Your task to perform on an android device: Go to display settings Image 0: 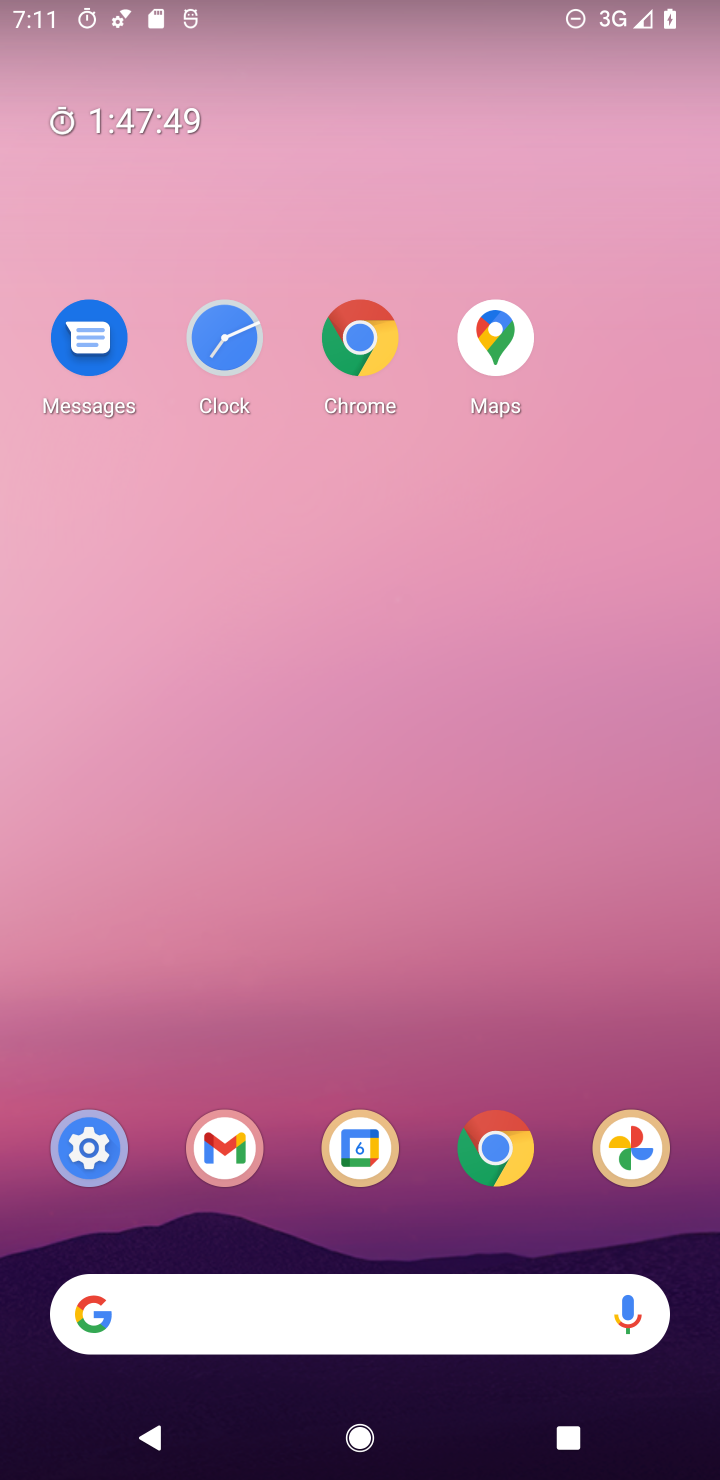
Step 0: drag from (434, 997) to (416, 189)
Your task to perform on an android device: Go to display settings Image 1: 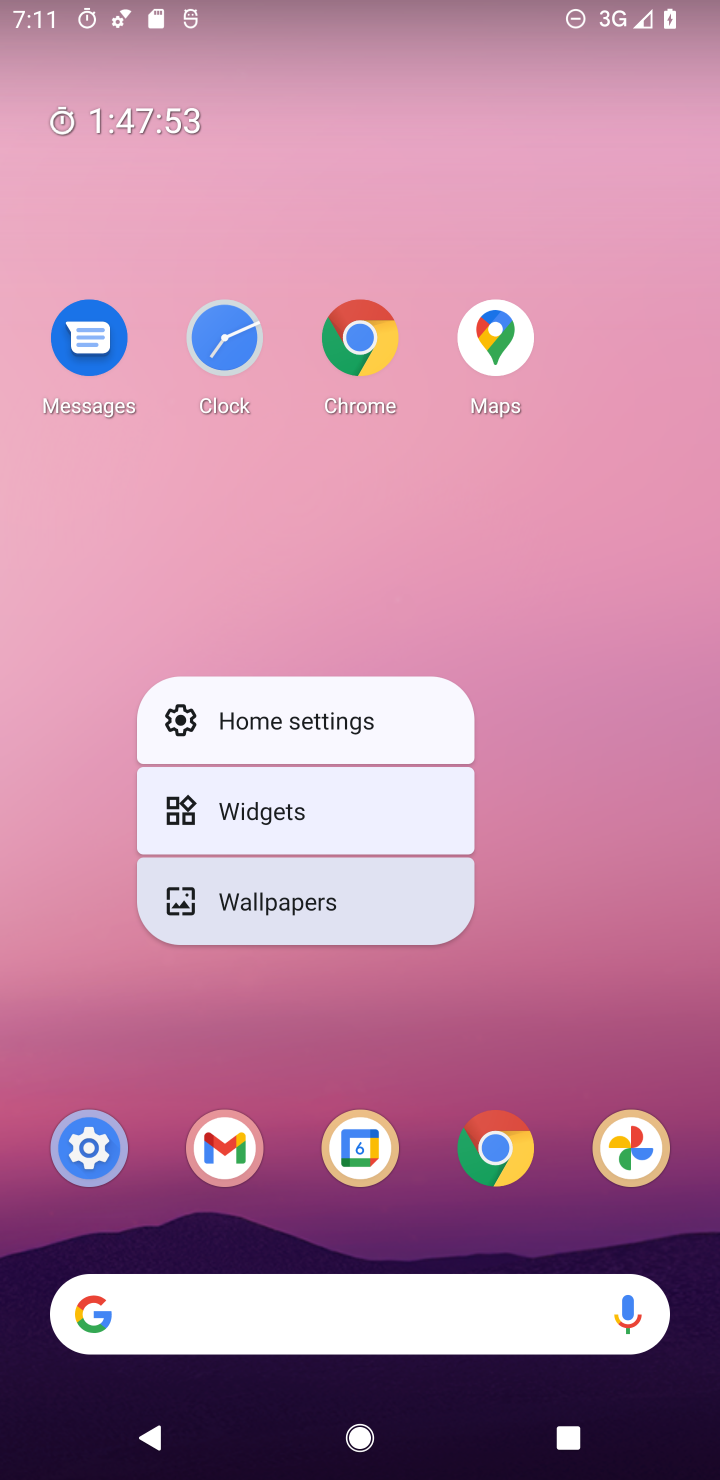
Step 1: drag from (428, 1195) to (407, 240)
Your task to perform on an android device: Go to display settings Image 2: 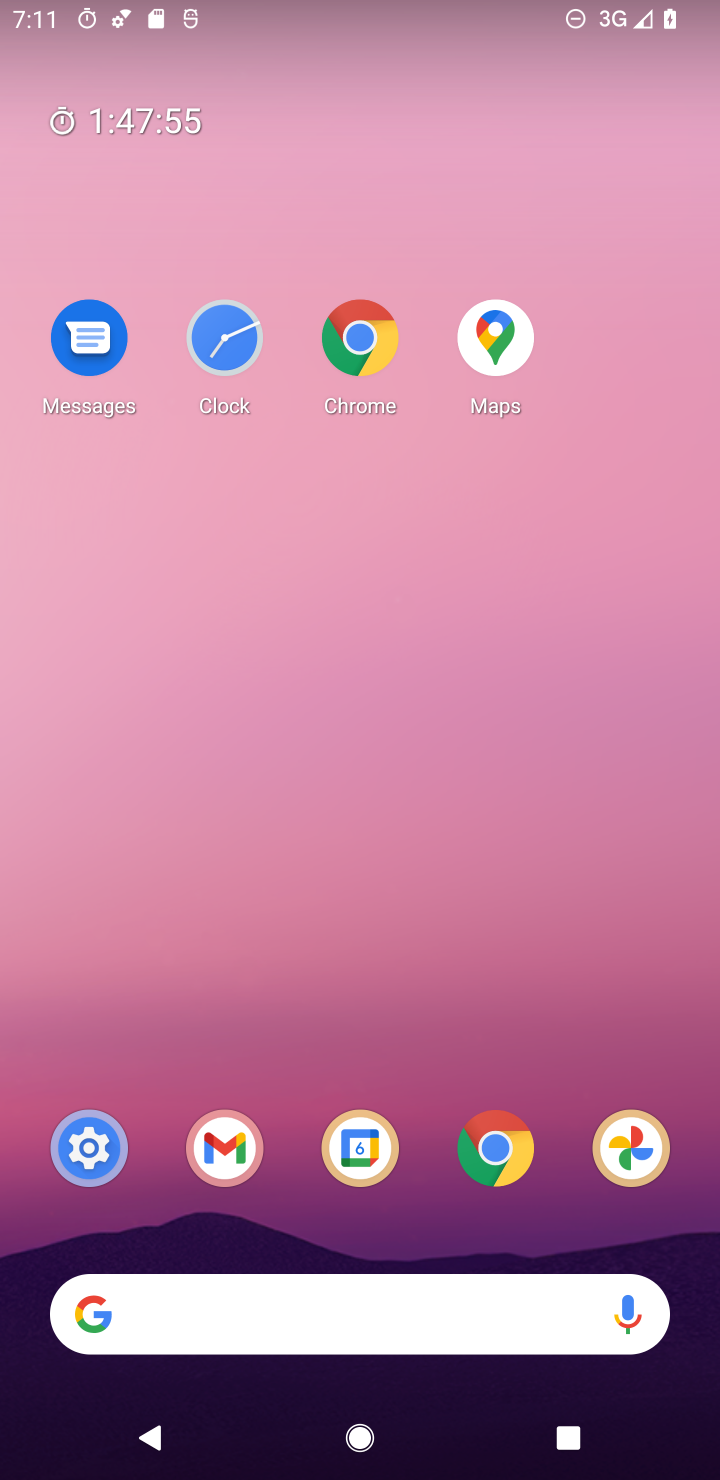
Step 2: drag from (432, 1228) to (575, 269)
Your task to perform on an android device: Go to display settings Image 3: 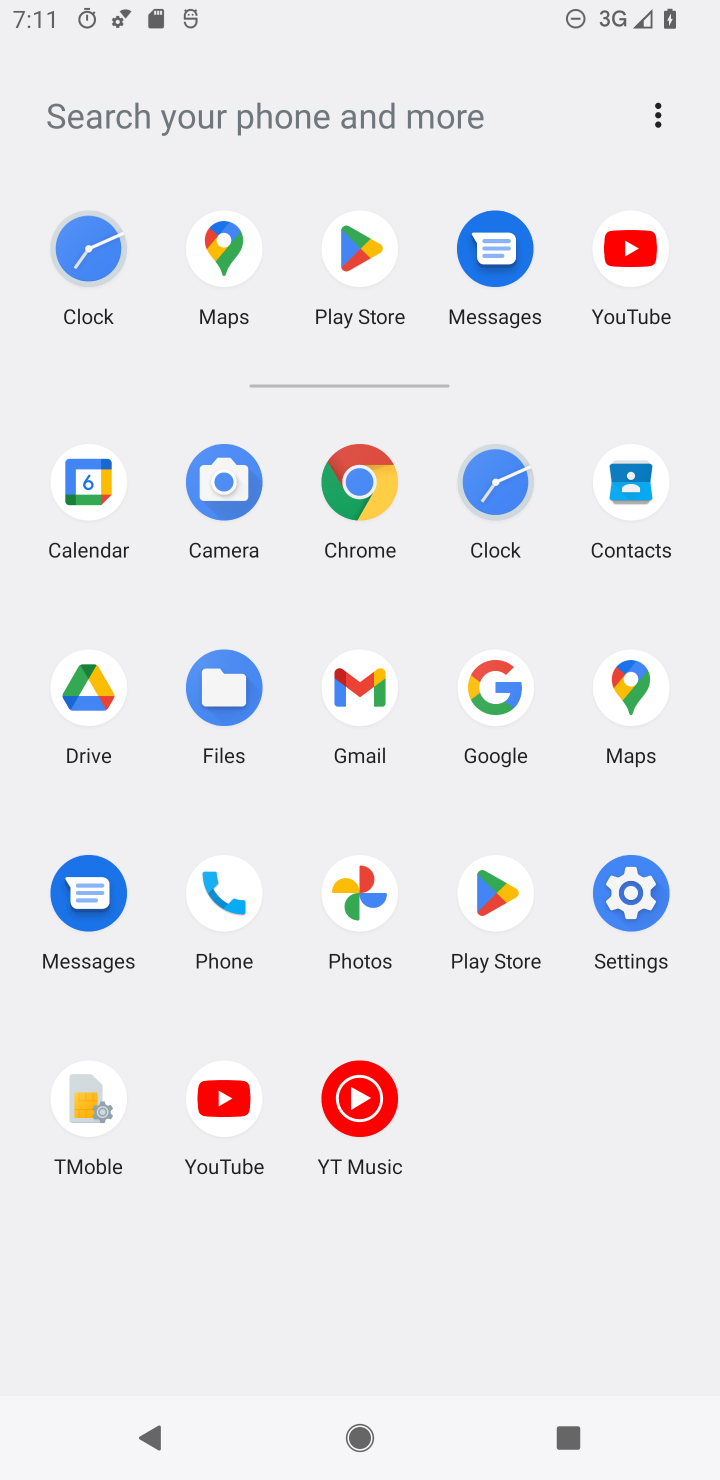
Step 3: click (347, 469)
Your task to perform on an android device: Go to display settings Image 4: 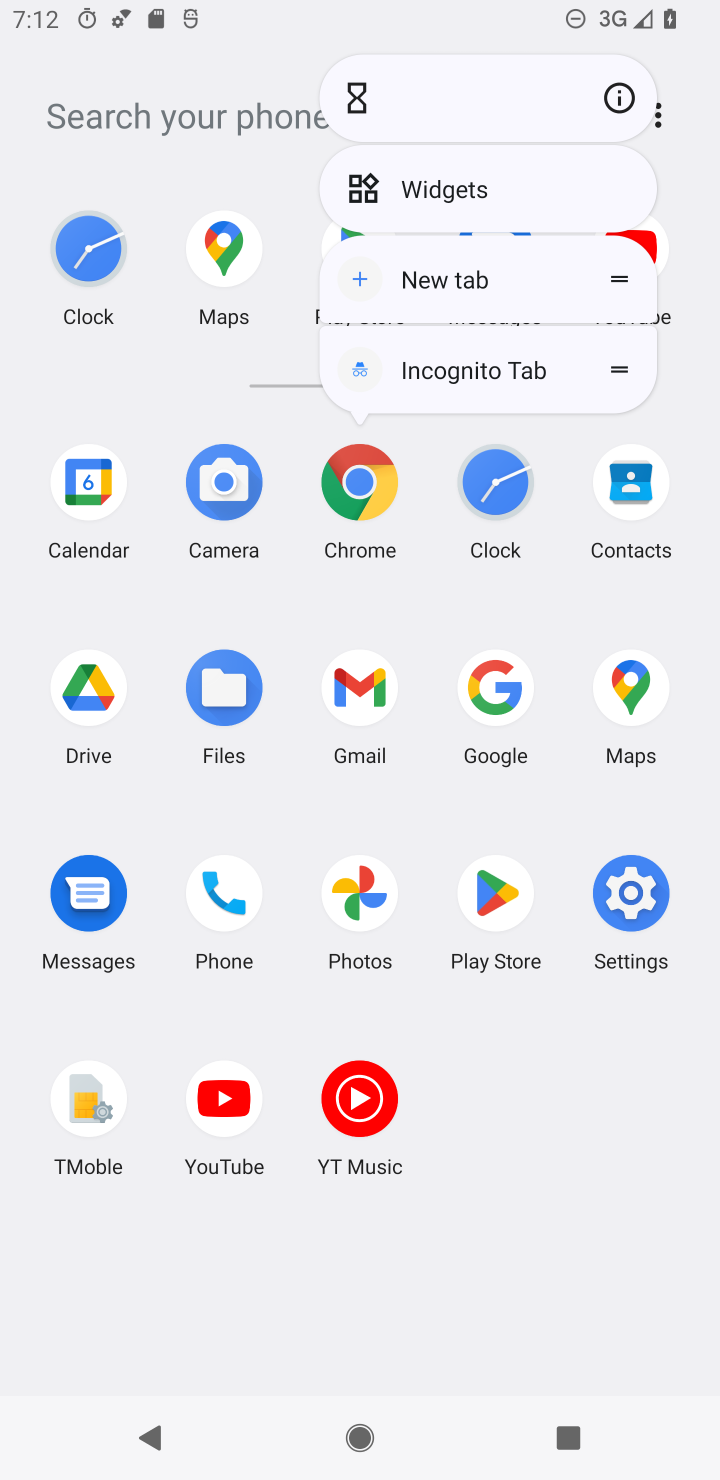
Step 4: click (609, 96)
Your task to perform on an android device: Go to display settings Image 5: 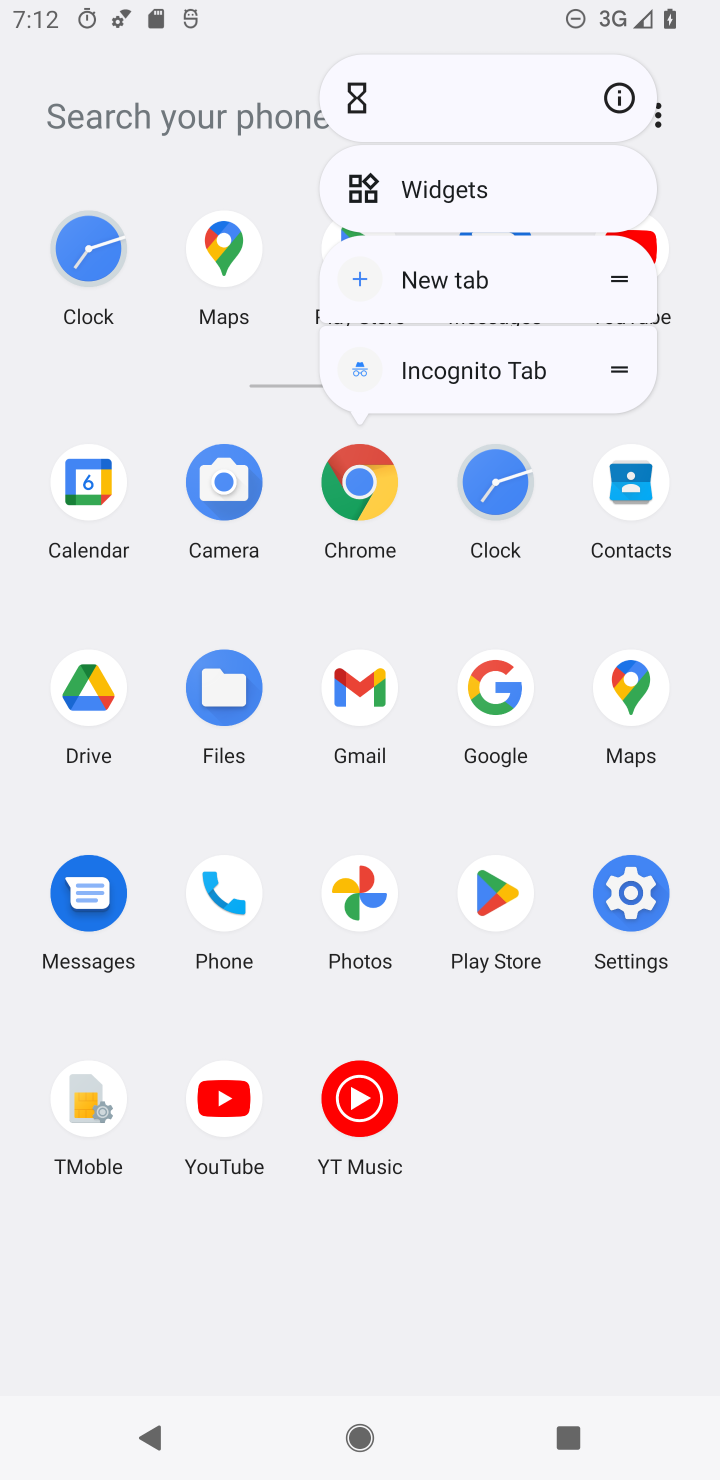
Step 5: click (610, 901)
Your task to perform on an android device: Go to display settings Image 6: 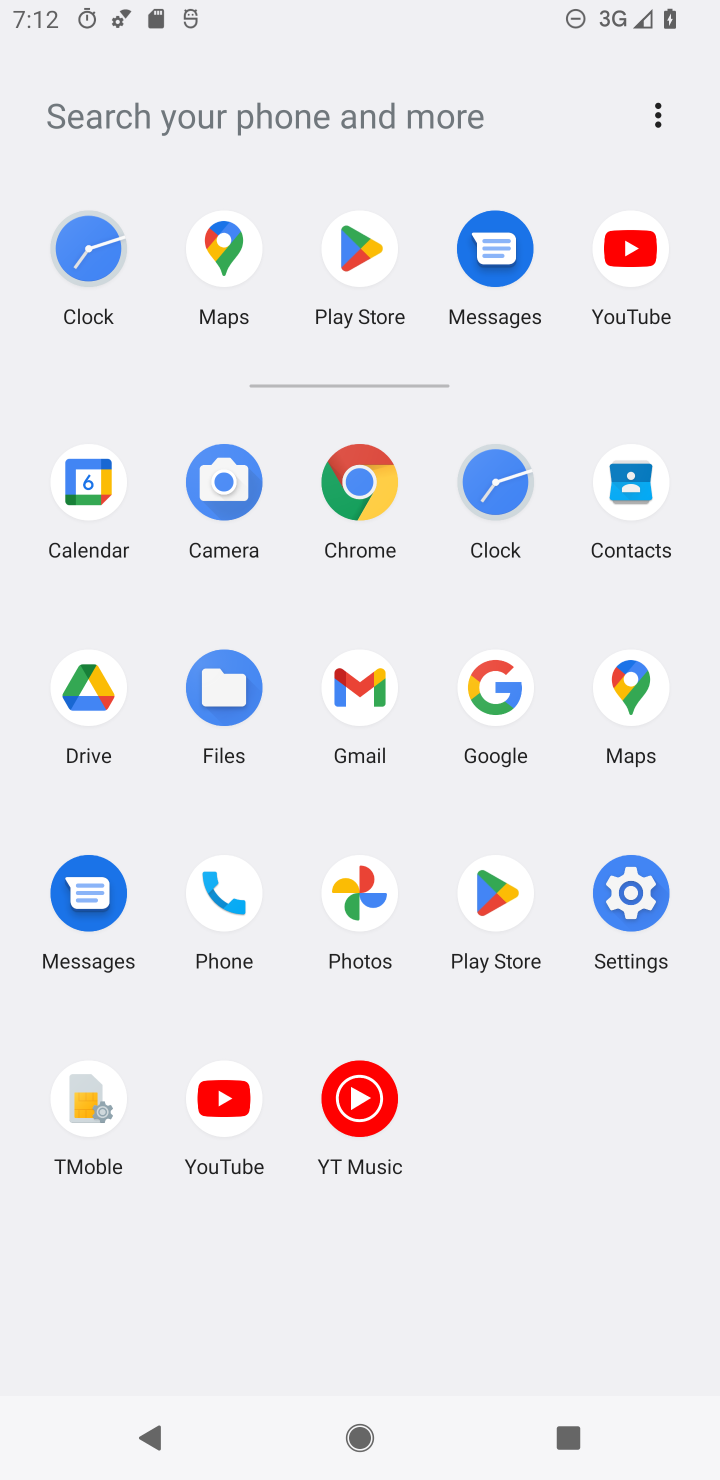
Step 6: click (608, 901)
Your task to perform on an android device: Go to display settings Image 7: 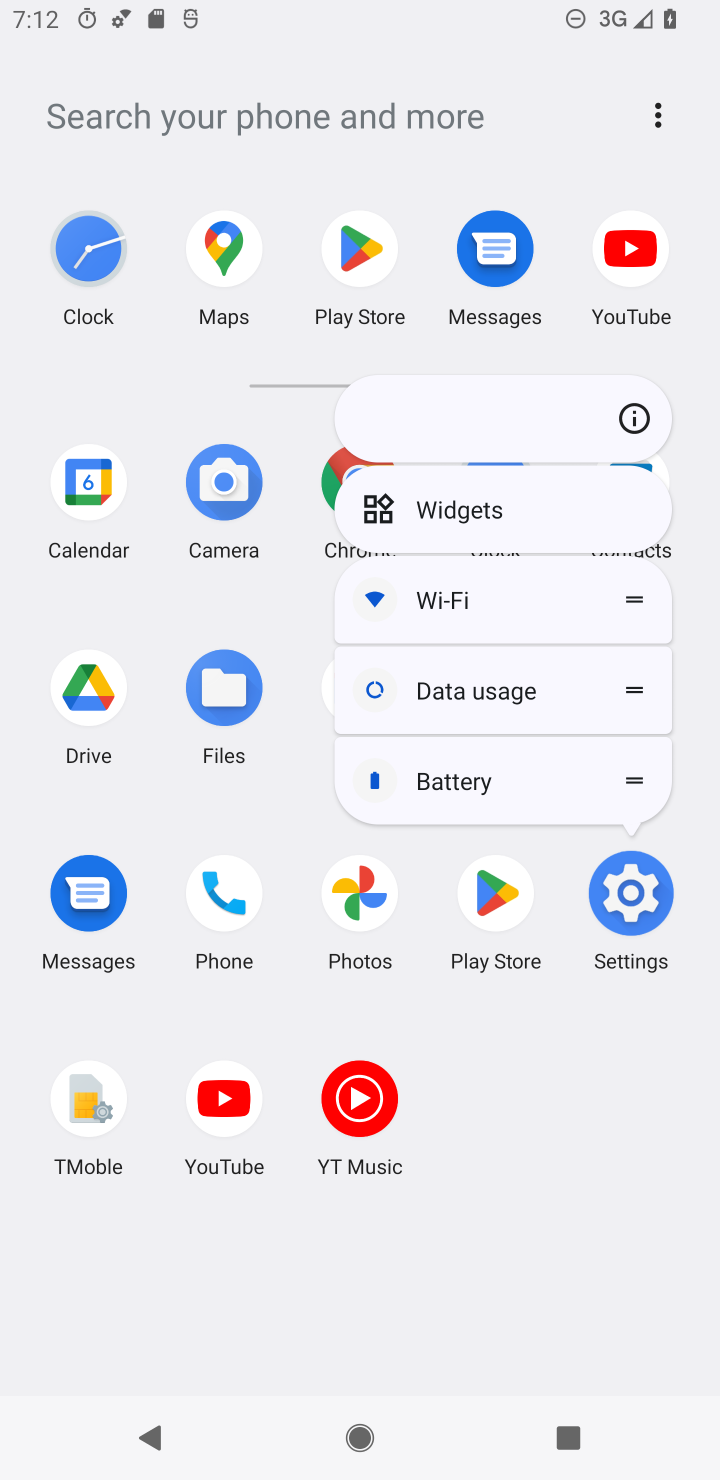
Step 7: click (608, 901)
Your task to perform on an android device: Go to display settings Image 8: 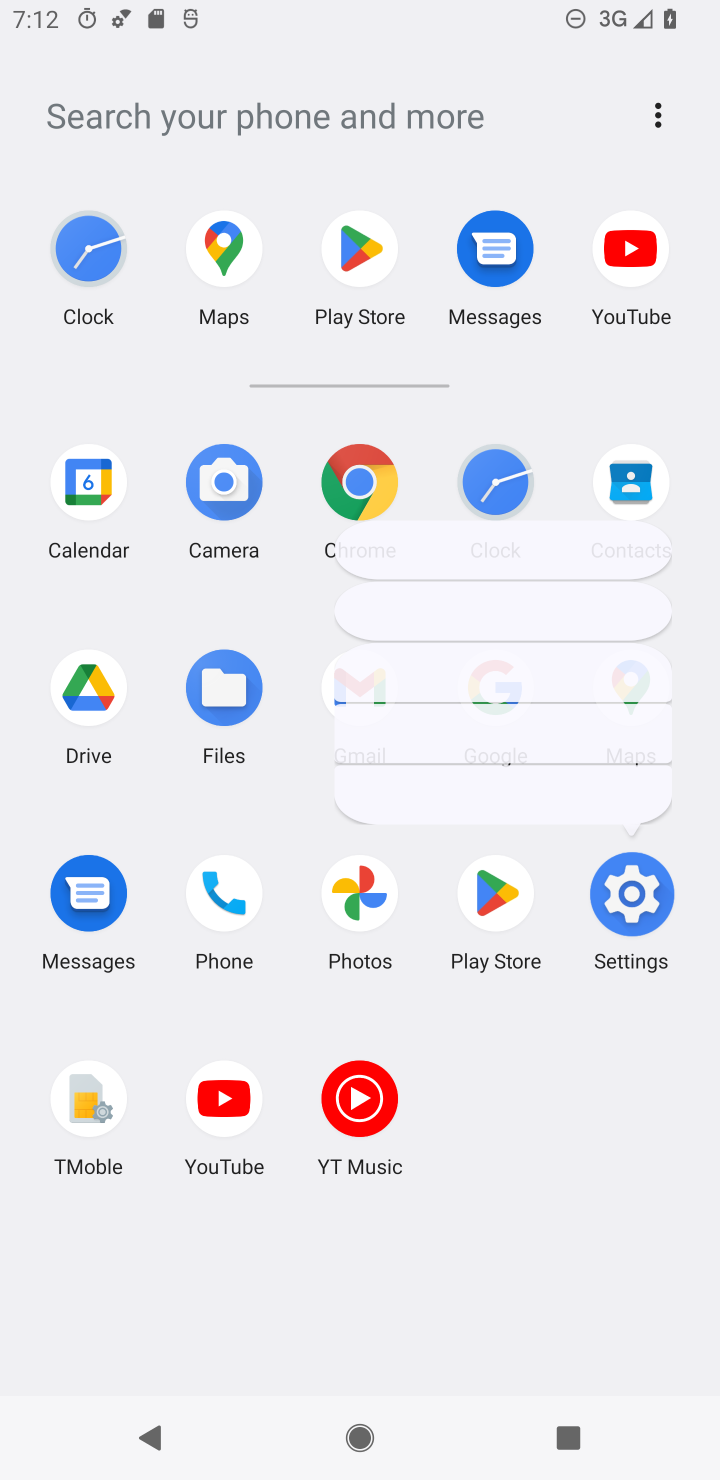
Step 8: click (614, 897)
Your task to perform on an android device: Go to display settings Image 9: 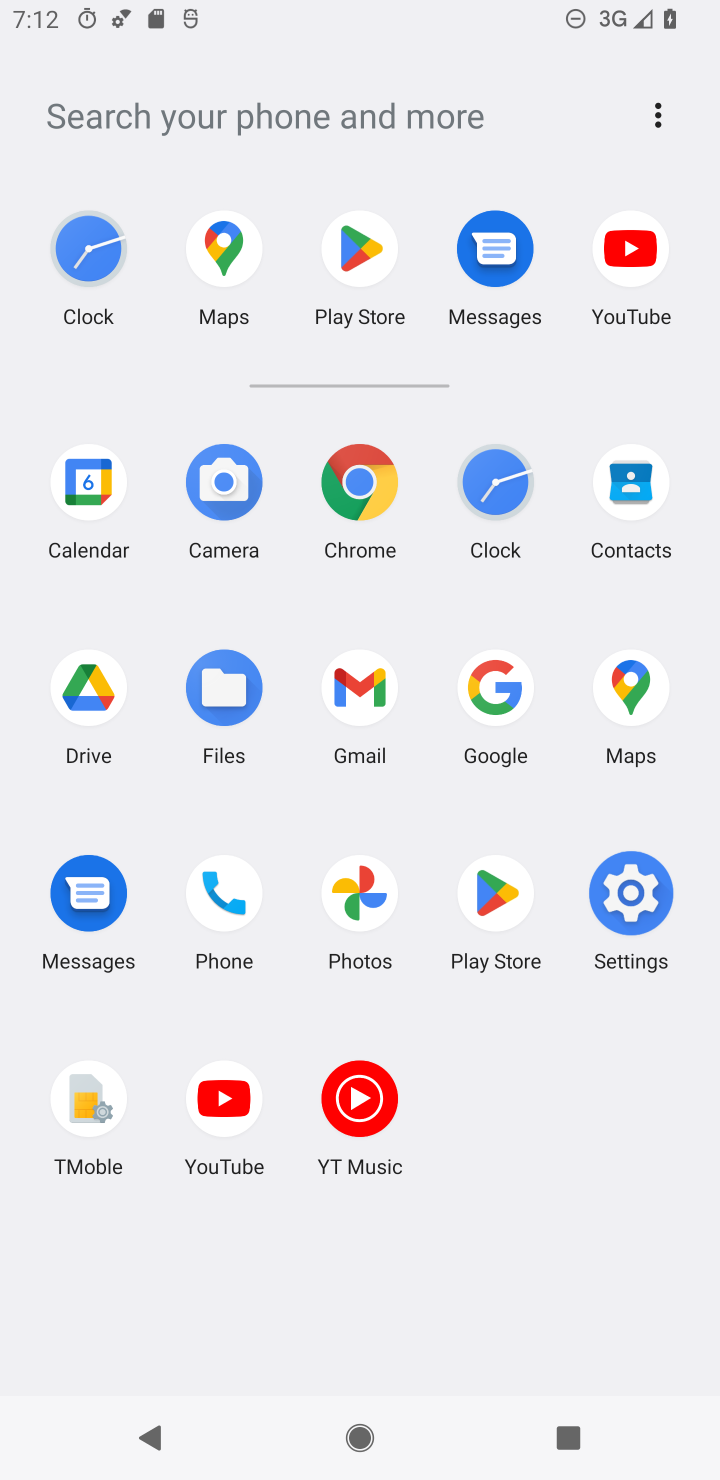
Step 9: click (673, 843)
Your task to perform on an android device: Go to display settings Image 10: 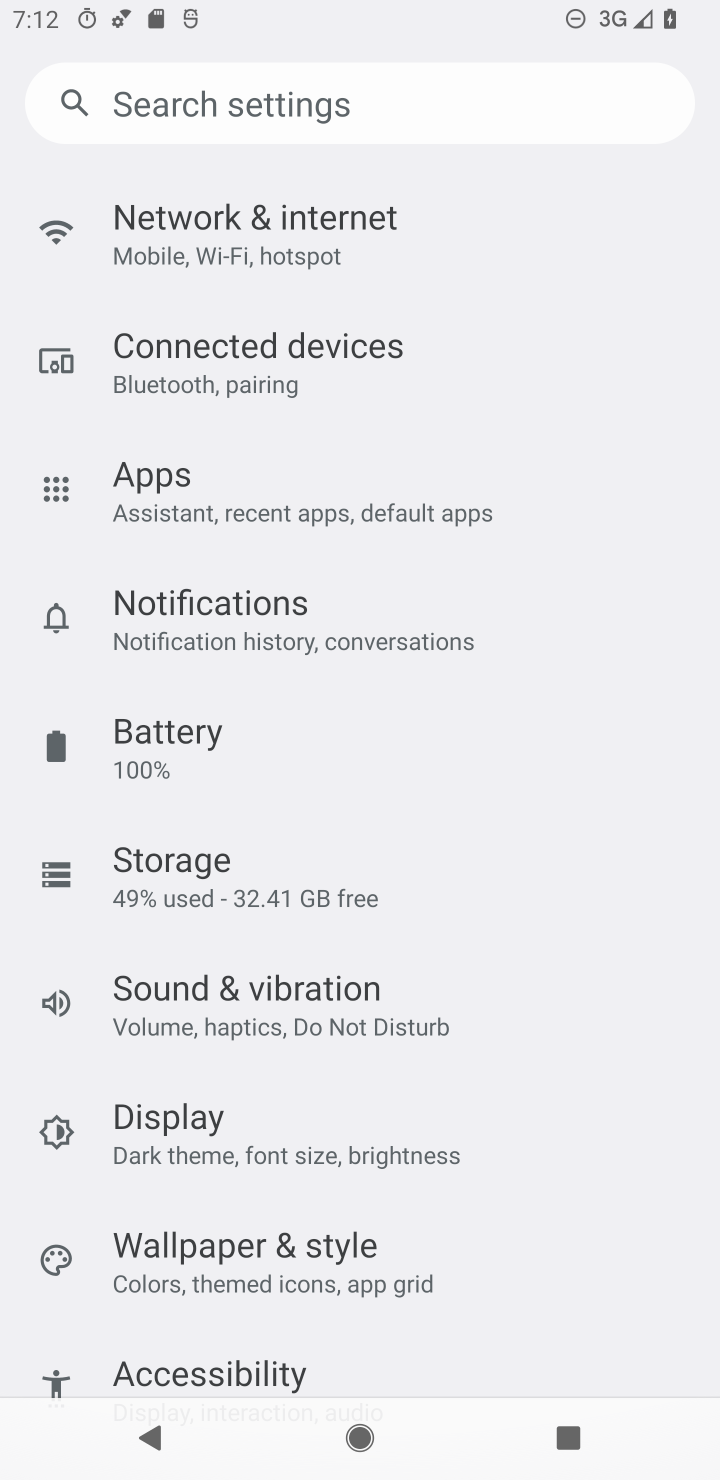
Step 10: click (641, 870)
Your task to perform on an android device: Go to display settings Image 11: 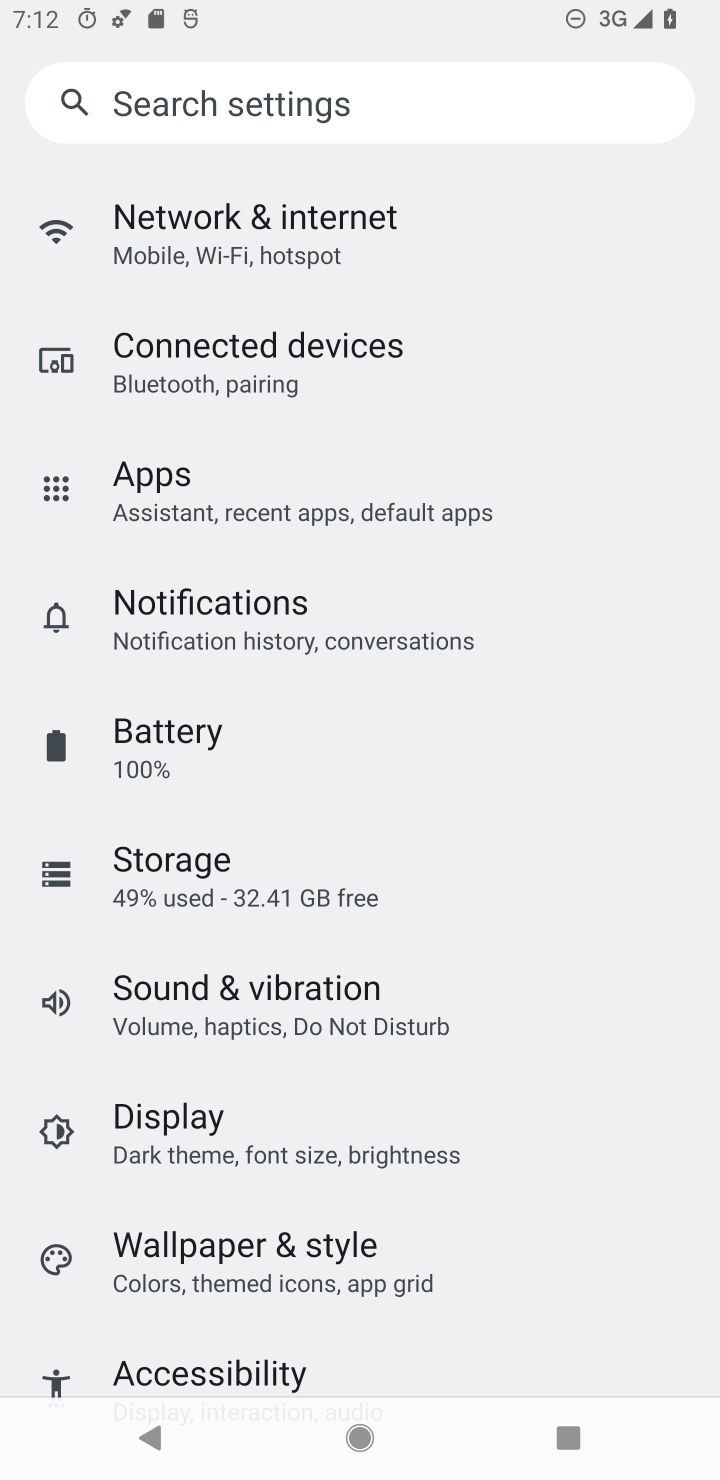
Step 11: drag from (510, 1052) to (575, 356)
Your task to perform on an android device: Go to display settings Image 12: 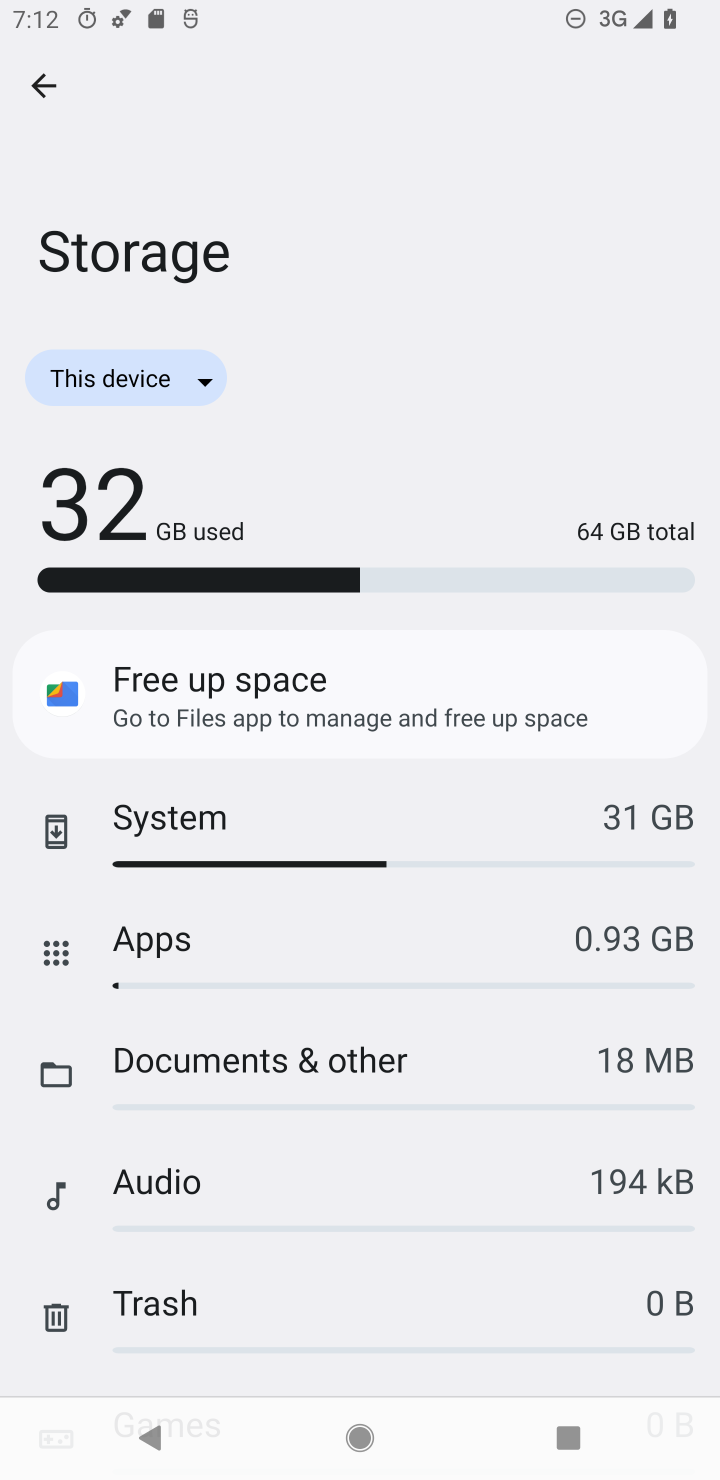
Step 12: press back button
Your task to perform on an android device: Go to display settings Image 13: 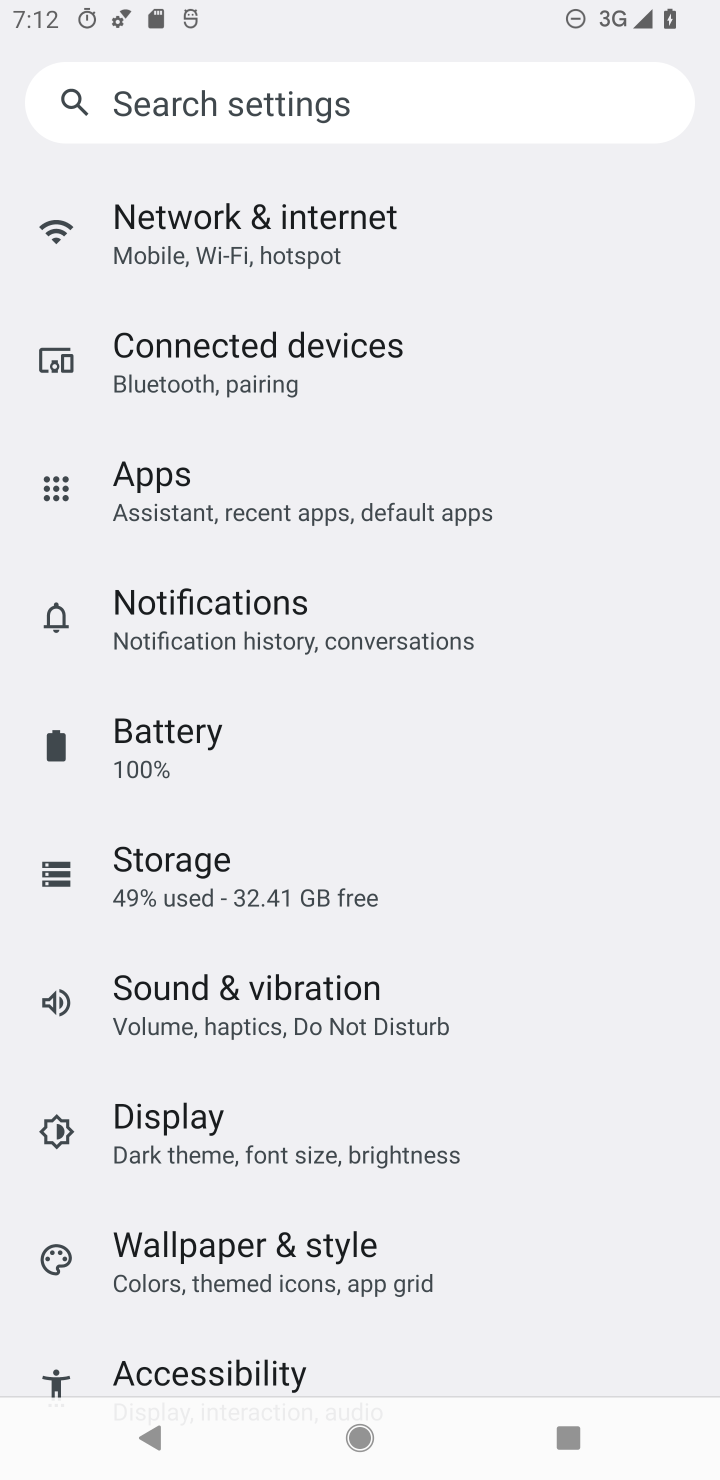
Step 13: click (255, 1116)
Your task to perform on an android device: Go to display settings Image 14: 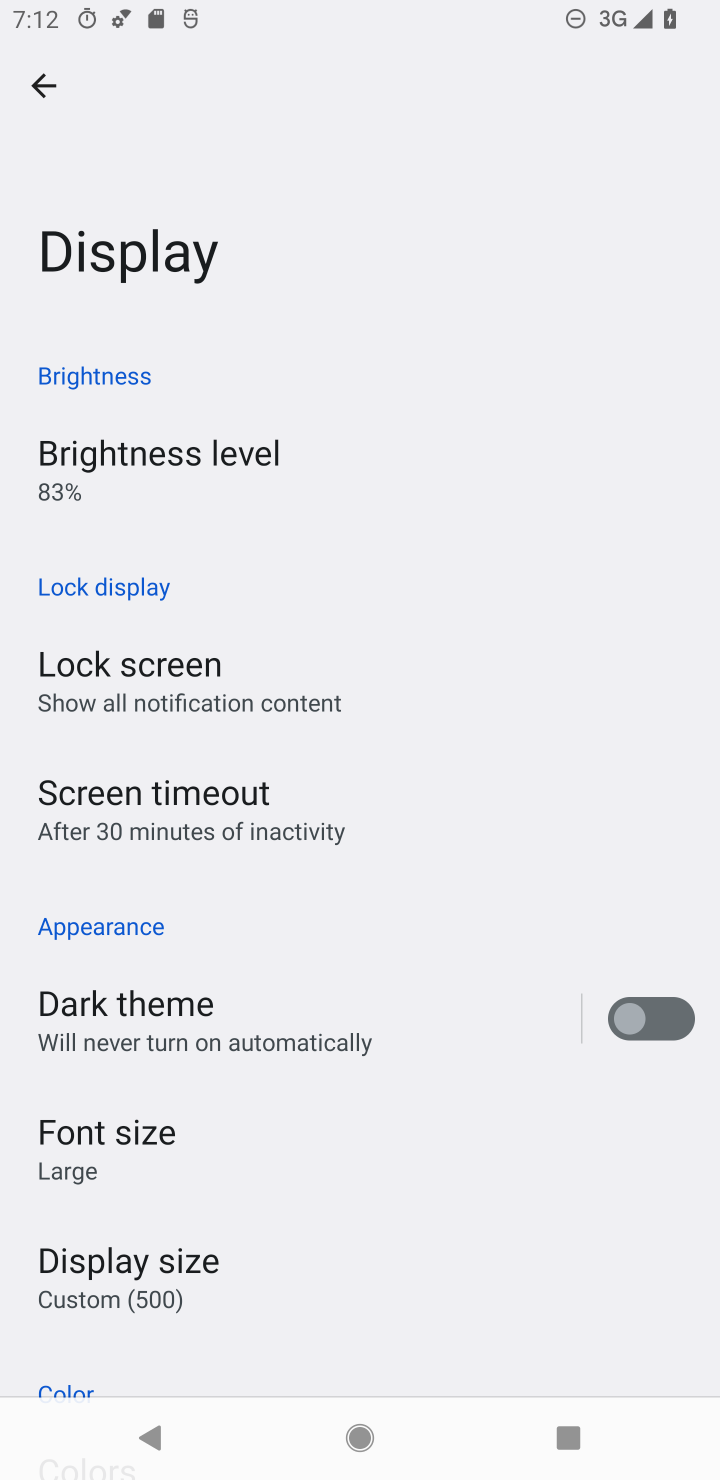
Step 14: task complete